Your task to perform on an android device: Search for a new mascara Image 0: 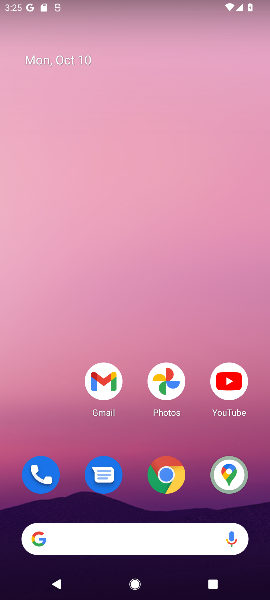
Step 0: drag from (136, 446) to (143, 299)
Your task to perform on an android device: Search for a new mascara Image 1: 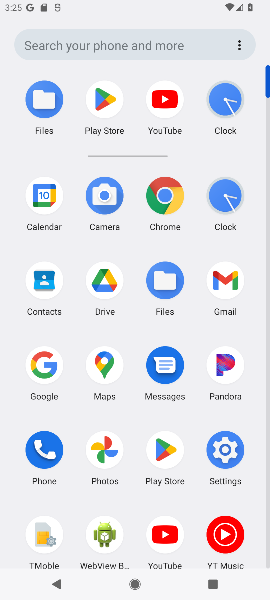
Step 1: click (32, 372)
Your task to perform on an android device: Search for a new mascara Image 2: 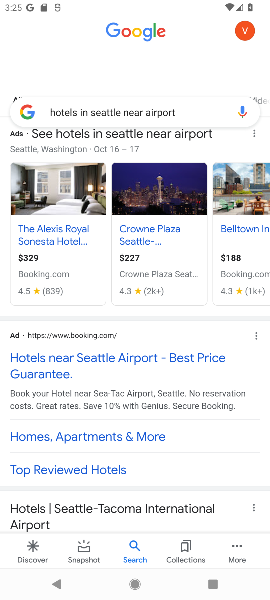
Step 2: click (201, 109)
Your task to perform on an android device: Search for a new mascara Image 3: 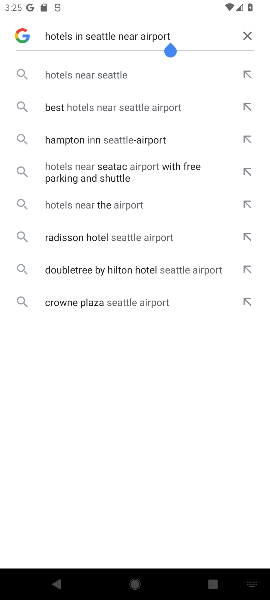
Step 3: click (247, 39)
Your task to perform on an android device: Search for a new mascara Image 4: 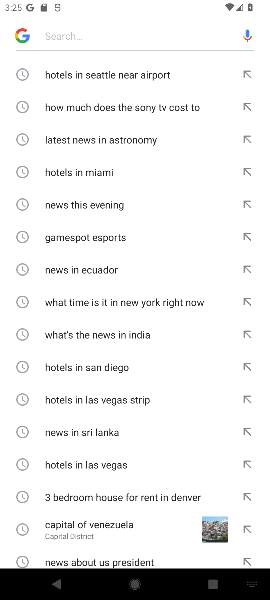
Step 4: type "new mascara"
Your task to perform on an android device: Search for a new mascara Image 5: 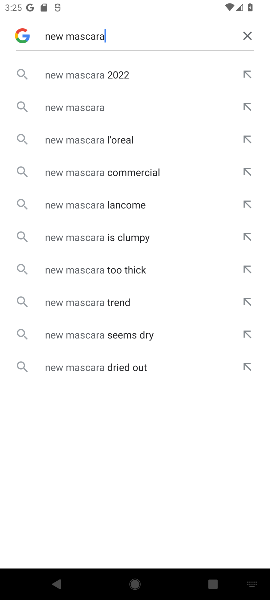
Step 5: click (64, 109)
Your task to perform on an android device: Search for a new mascara Image 6: 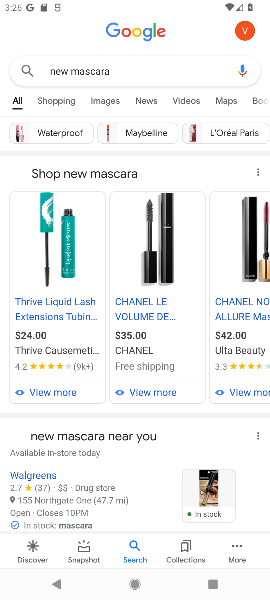
Step 6: task complete